Your task to perform on an android device: check android version Image 0: 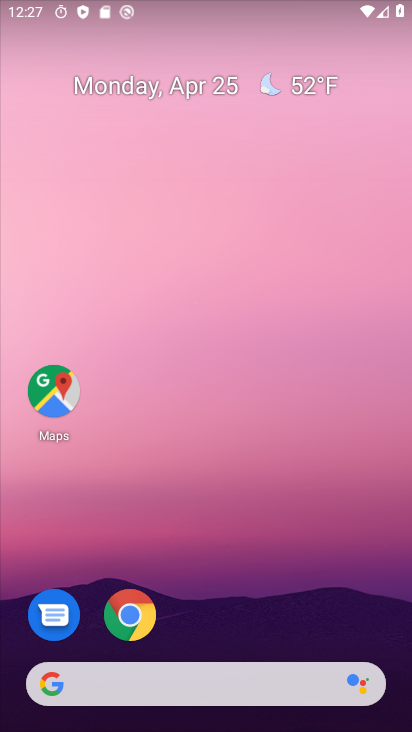
Step 0: drag from (198, 648) to (145, 19)
Your task to perform on an android device: check android version Image 1: 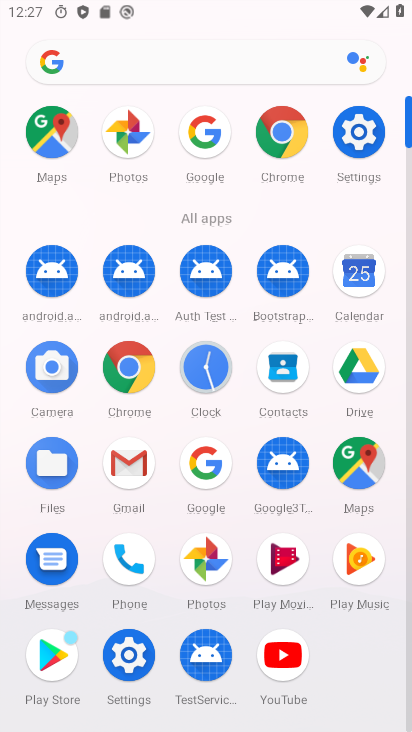
Step 1: click (370, 135)
Your task to perform on an android device: check android version Image 2: 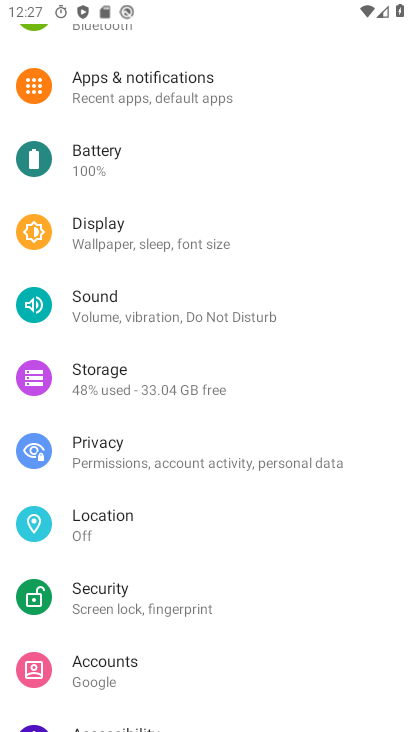
Step 2: drag from (207, 650) to (181, 109)
Your task to perform on an android device: check android version Image 3: 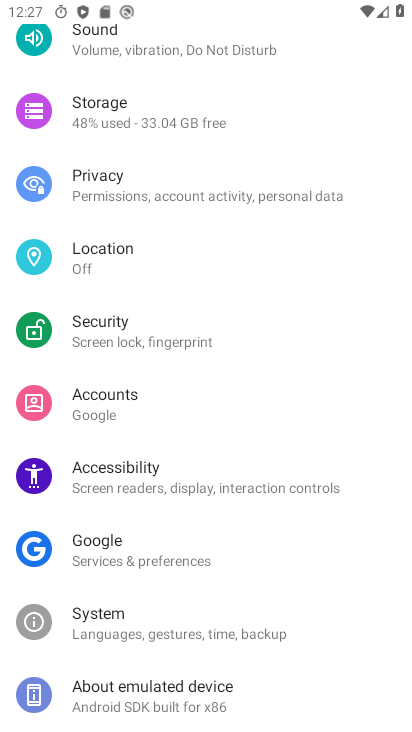
Step 3: click (164, 681)
Your task to perform on an android device: check android version Image 4: 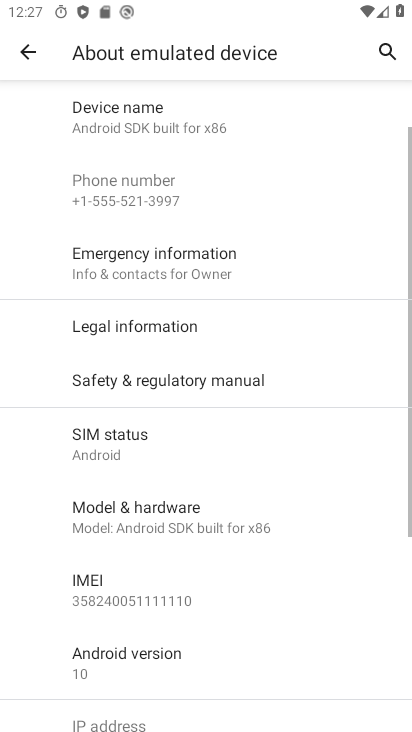
Step 4: click (112, 638)
Your task to perform on an android device: check android version Image 5: 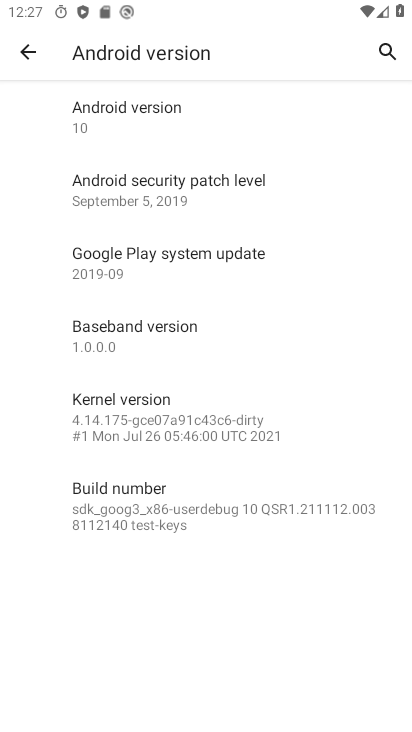
Step 5: click (141, 101)
Your task to perform on an android device: check android version Image 6: 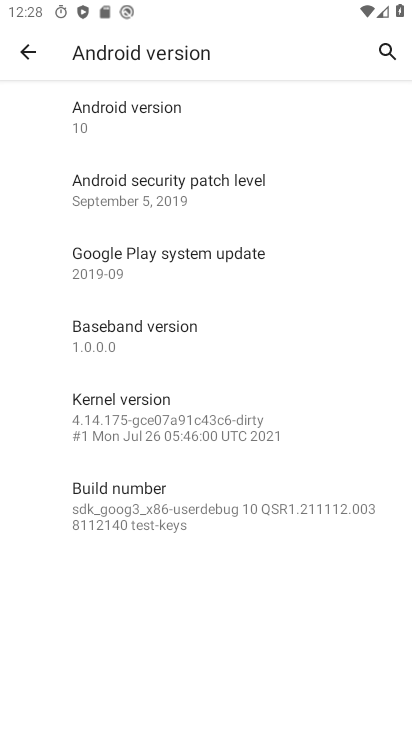
Step 6: task complete